Your task to perform on an android device: Open Amazon Image 0: 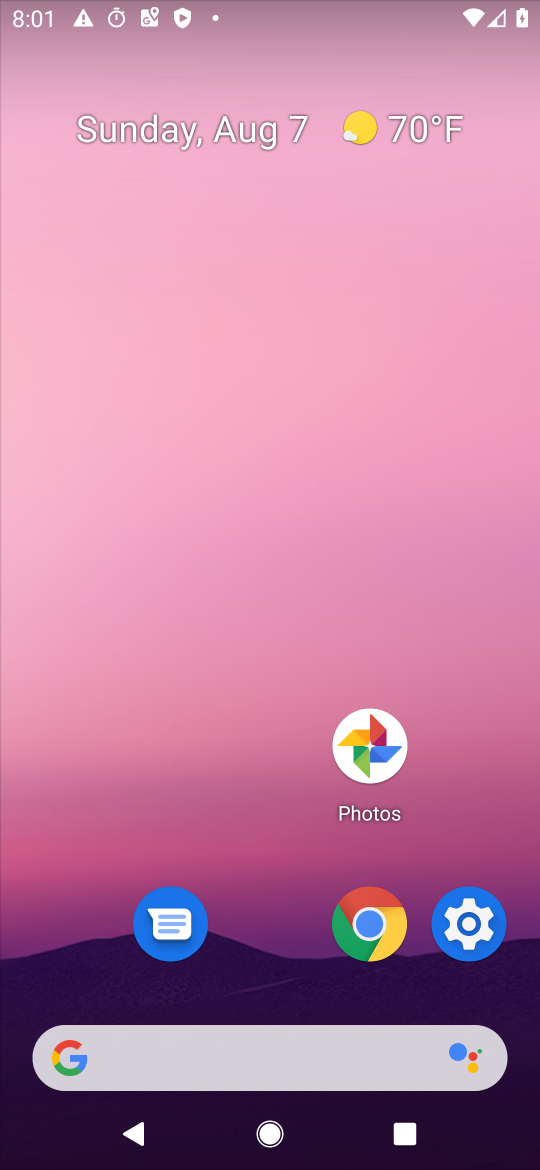
Step 0: drag from (329, 1082) to (343, 197)
Your task to perform on an android device: Open Amazon Image 1: 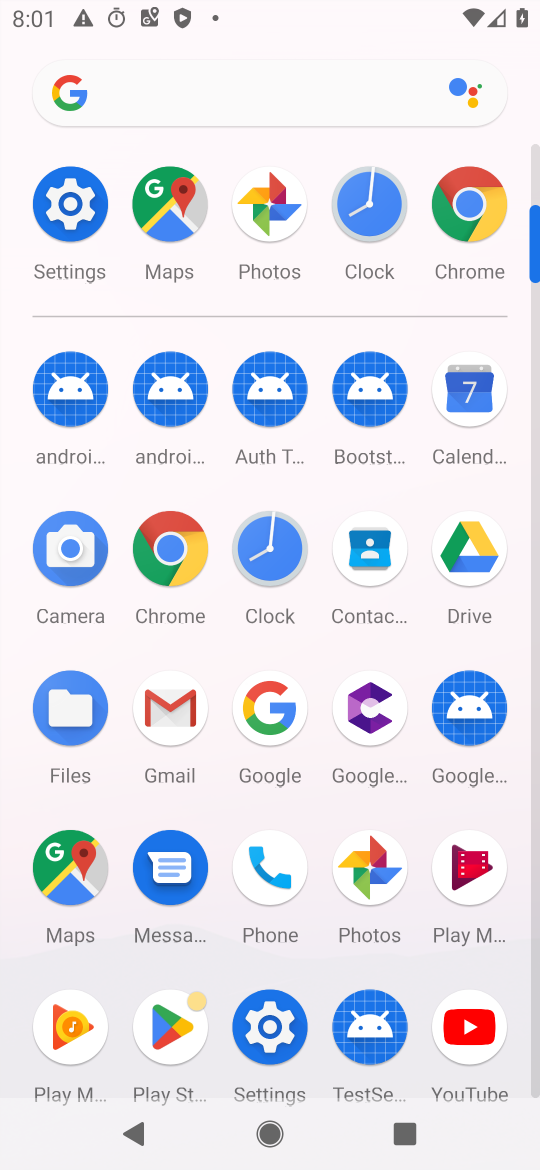
Step 1: click (460, 203)
Your task to perform on an android device: Open Amazon Image 2: 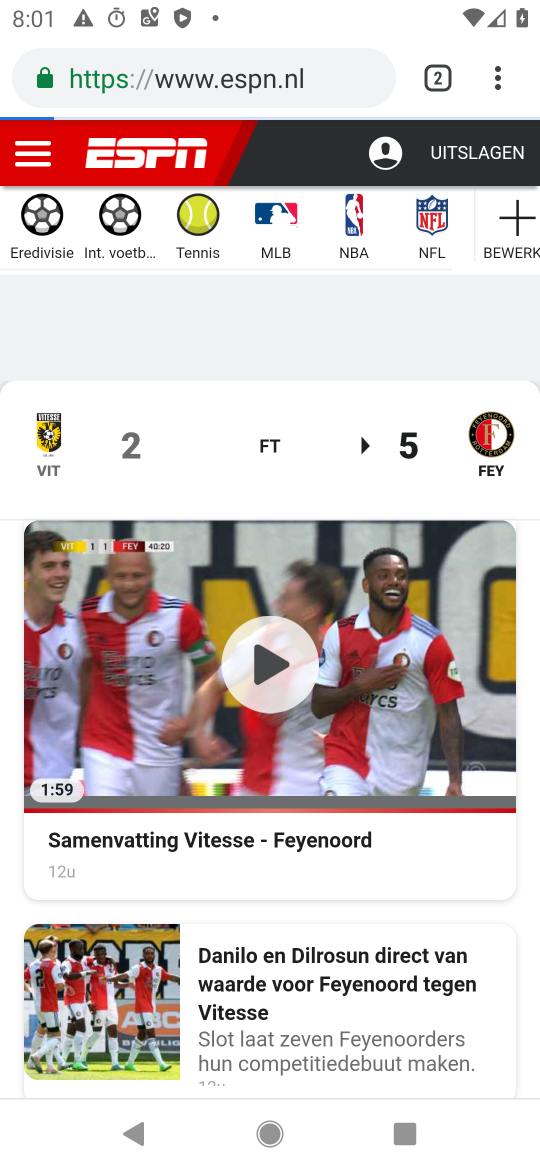
Step 2: click (447, 87)
Your task to perform on an android device: Open Amazon Image 3: 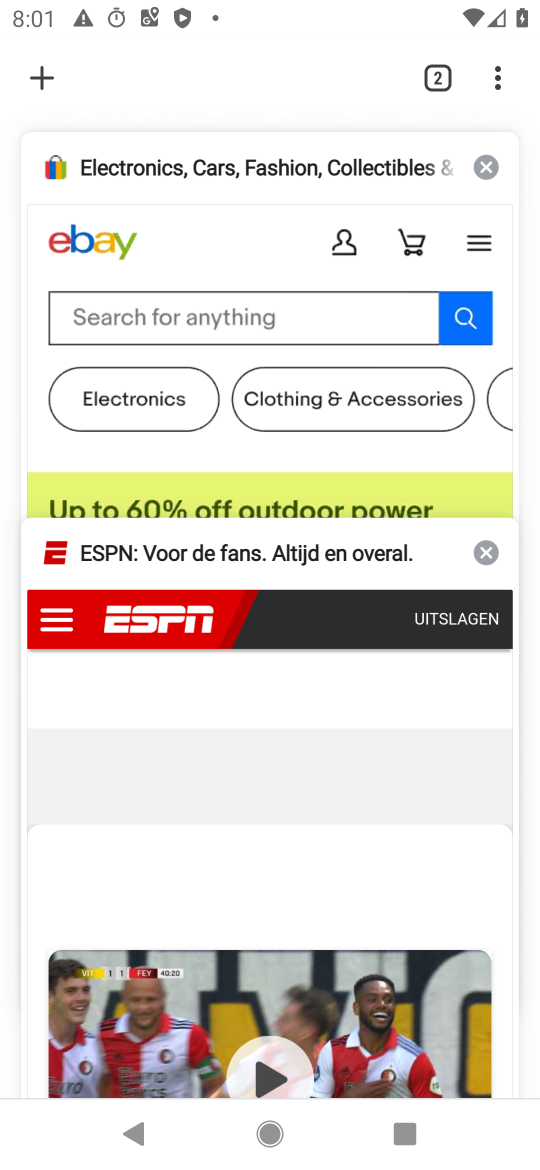
Step 3: click (54, 76)
Your task to perform on an android device: Open Amazon Image 4: 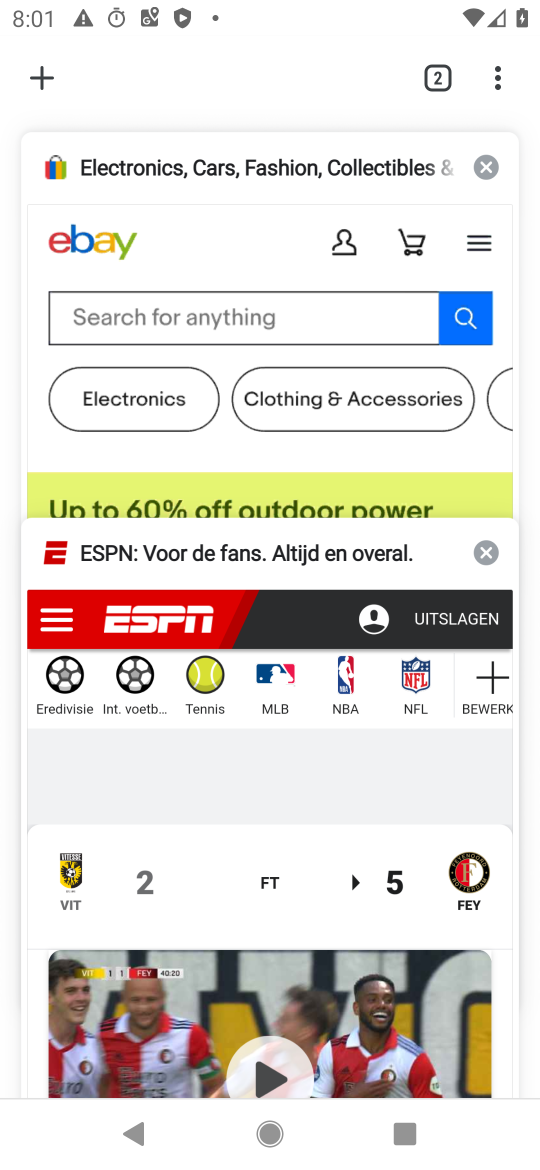
Step 4: click (50, 65)
Your task to perform on an android device: Open Amazon Image 5: 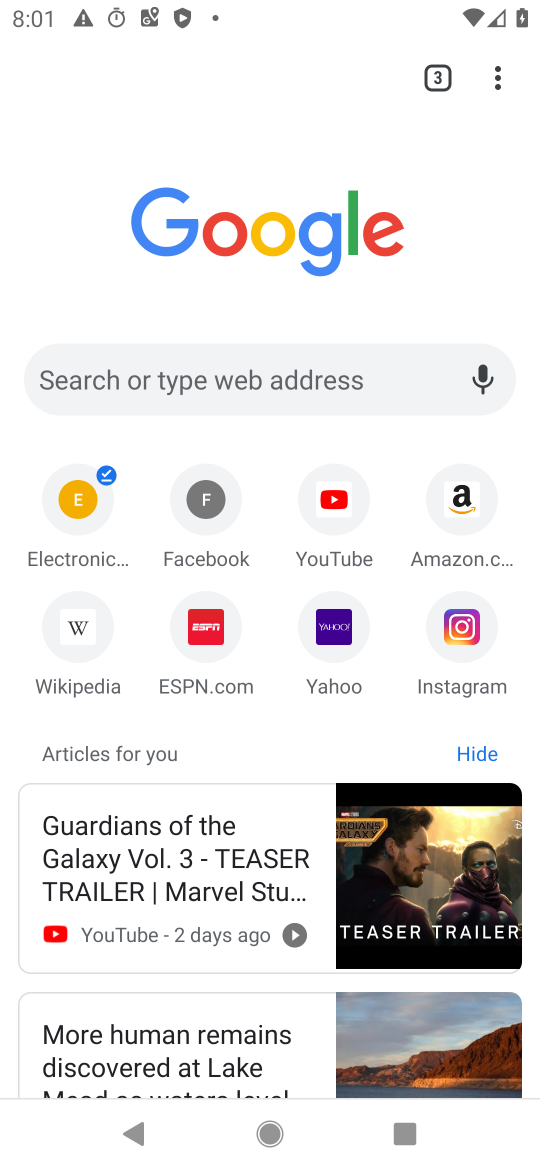
Step 5: click (478, 504)
Your task to perform on an android device: Open Amazon Image 6: 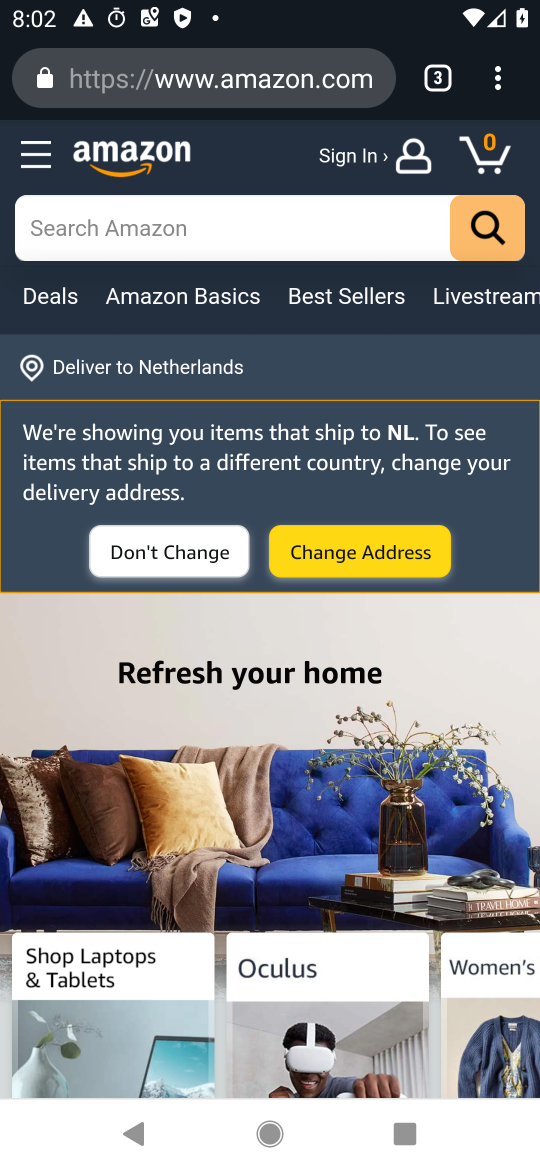
Step 6: task complete